Your task to perform on an android device: open chrome privacy settings Image 0: 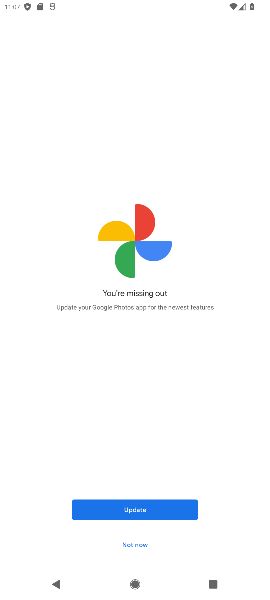
Step 0: press home button
Your task to perform on an android device: open chrome privacy settings Image 1: 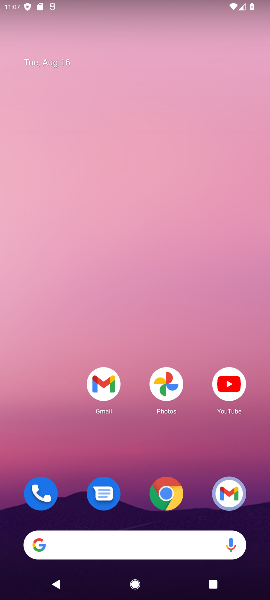
Step 1: click (157, 497)
Your task to perform on an android device: open chrome privacy settings Image 2: 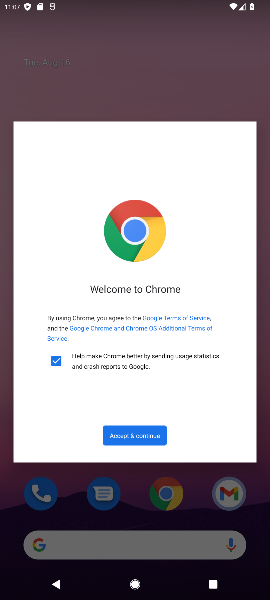
Step 2: click (133, 435)
Your task to perform on an android device: open chrome privacy settings Image 3: 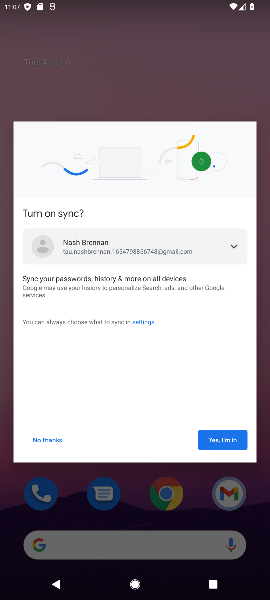
Step 3: click (201, 443)
Your task to perform on an android device: open chrome privacy settings Image 4: 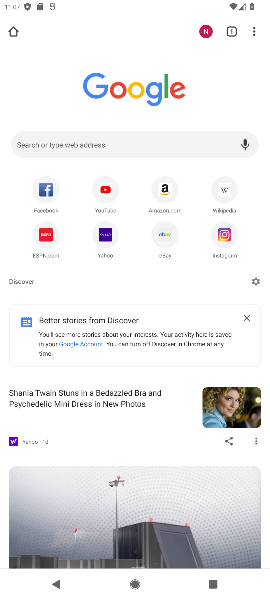
Step 4: click (253, 30)
Your task to perform on an android device: open chrome privacy settings Image 5: 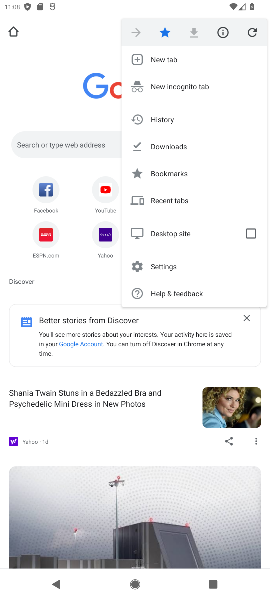
Step 5: click (152, 274)
Your task to perform on an android device: open chrome privacy settings Image 6: 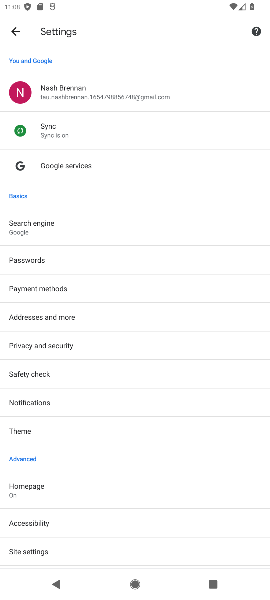
Step 6: click (18, 348)
Your task to perform on an android device: open chrome privacy settings Image 7: 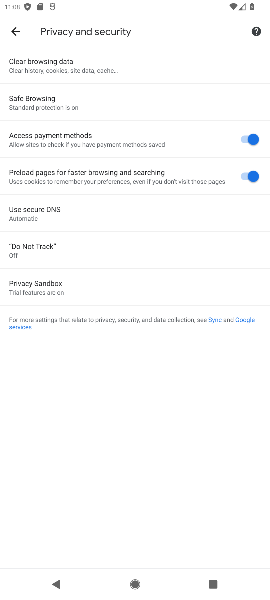
Step 7: task complete